Your task to perform on an android device: Open settings on Google Maps Image 0: 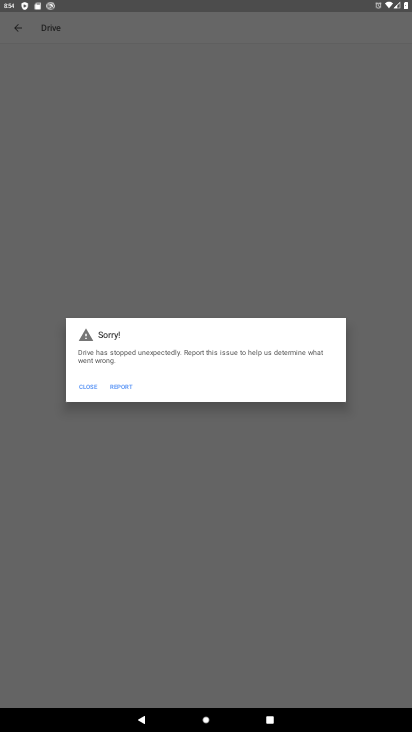
Step 0: press home button
Your task to perform on an android device: Open settings on Google Maps Image 1: 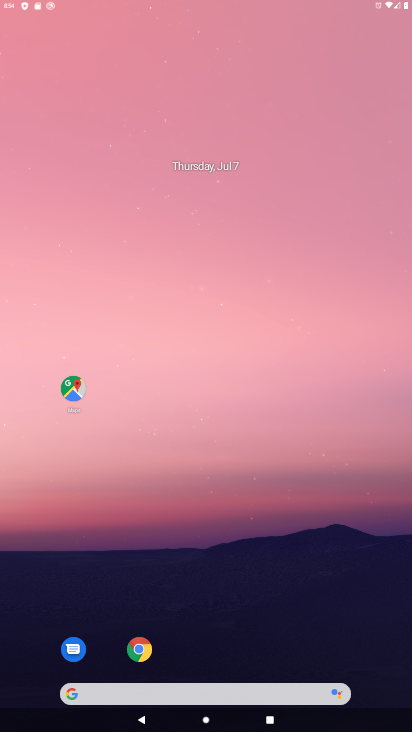
Step 1: drag from (300, 675) to (284, 65)
Your task to perform on an android device: Open settings on Google Maps Image 2: 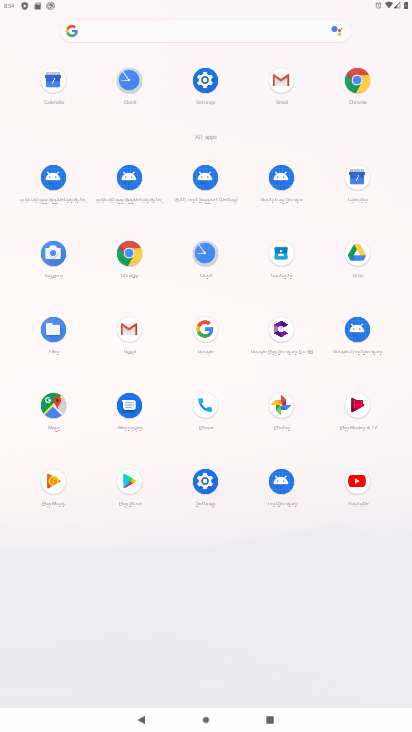
Step 2: click (53, 405)
Your task to perform on an android device: Open settings on Google Maps Image 3: 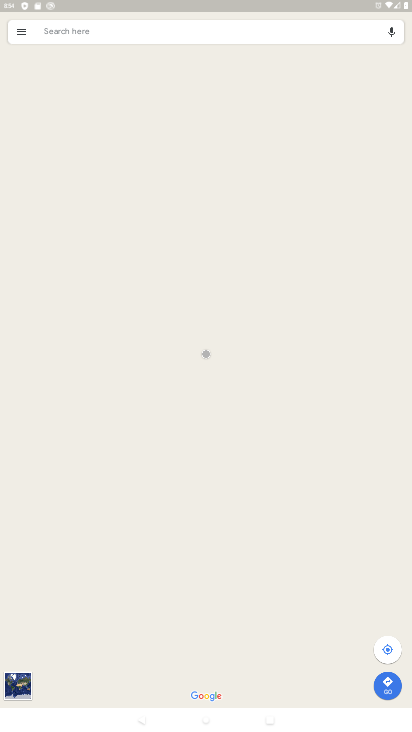
Step 3: click (18, 26)
Your task to perform on an android device: Open settings on Google Maps Image 4: 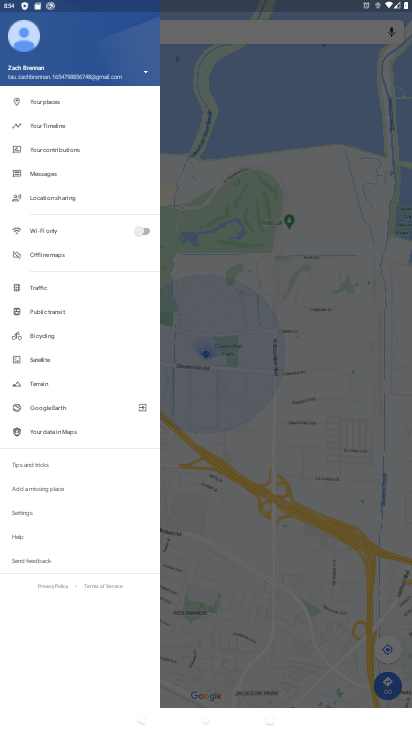
Step 4: click (58, 123)
Your task to perform on an android device: Open settings on Google Maps Image 5: 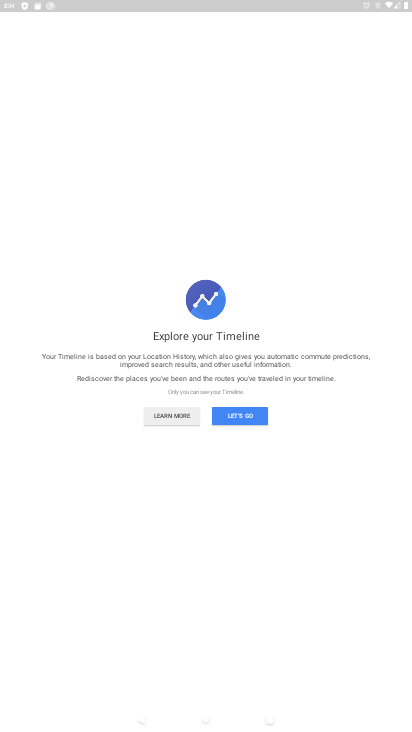
Step 5: click (236, 417)
Your task to perform on an android device: Open settings on Google Maps Image 6: 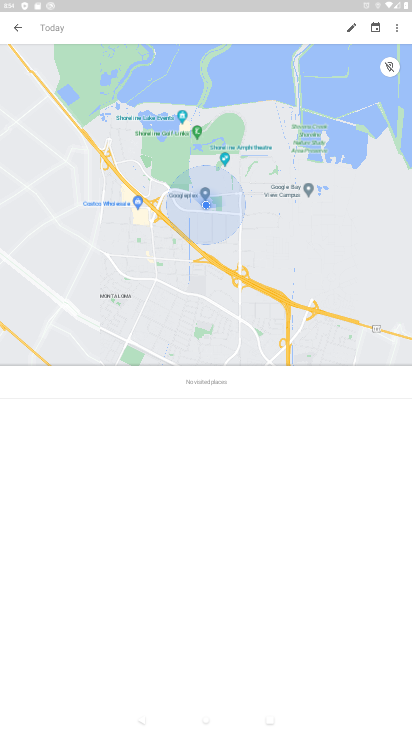
Step 6: click (399, 26)
Your task to perform on an android device: Open settings on Google Maps Image 7: 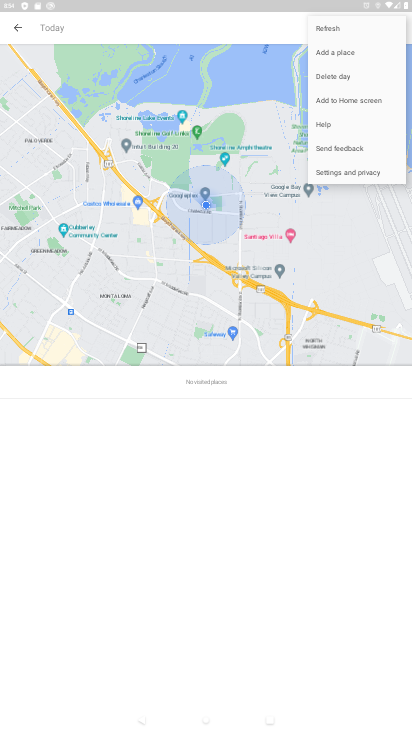
Step 7: click (354, 173)
Your task to perform on an android device: Open settings on Google Maps Image 8: 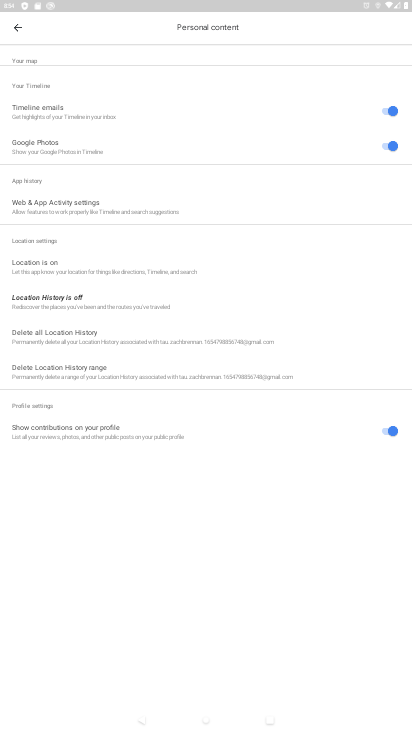
Step 8: task complete